Your task to perform on an android device: turn off wifi Image 0: 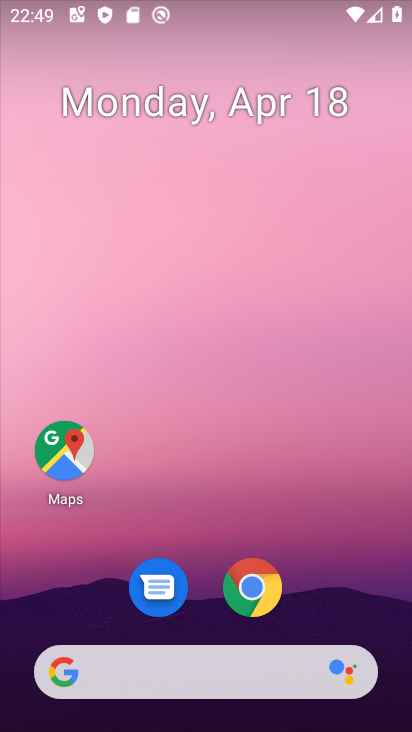
Step 0: drag from (392, 600) to (306, 190)
Your task to perform on an android device: turn off wifi Image 1: 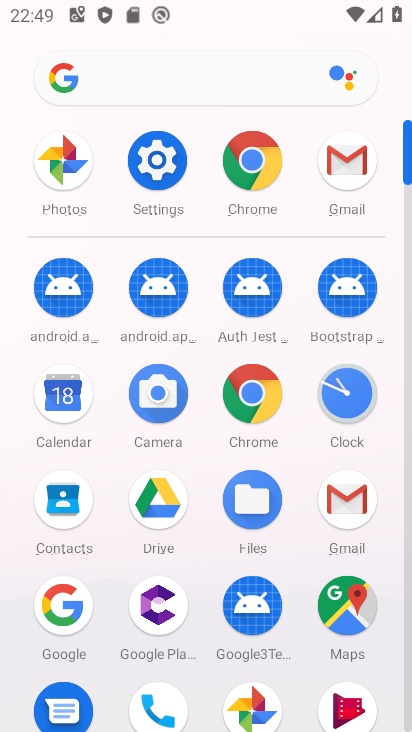
Step 1: click (144, 150)
Your task to perform on an android device: turn off wifi Image 2: 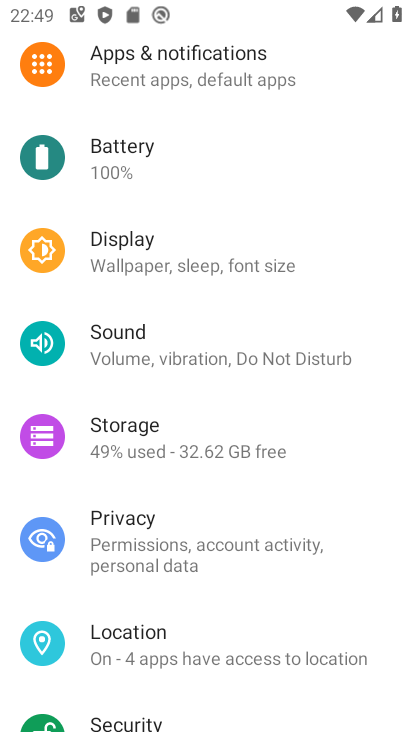
Step 2: drag from (236, 136) to (240, 547)
Your task to perform on an android device: turn off wifi Image 3: 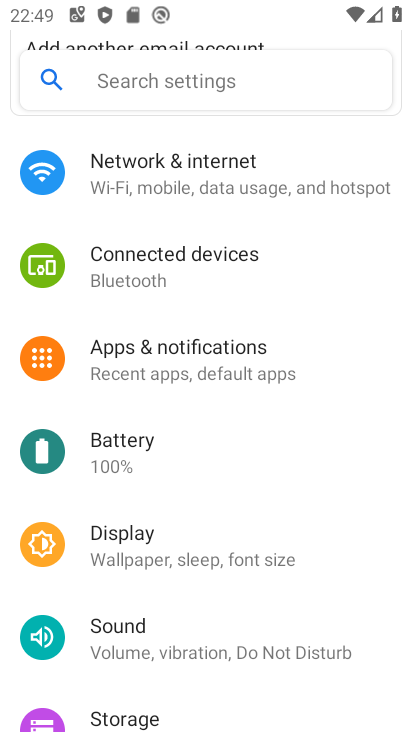
Step 3: click (186, 183)
Your task to perform on an android device: turn off wifi Image 4: 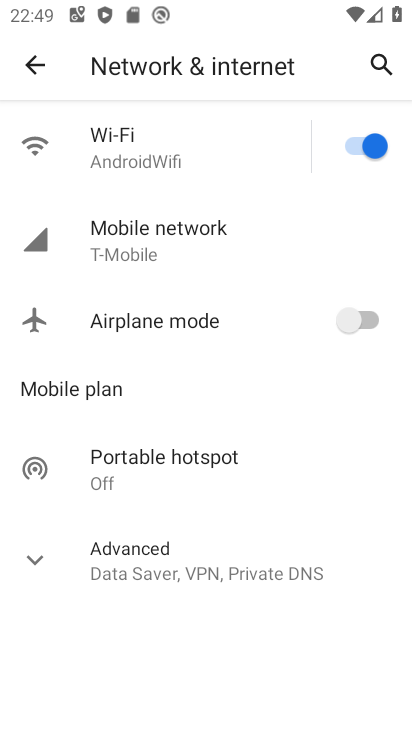
Step 4: click (360, 142)
Your task to perform on an android device: turn off wifi Image 5: 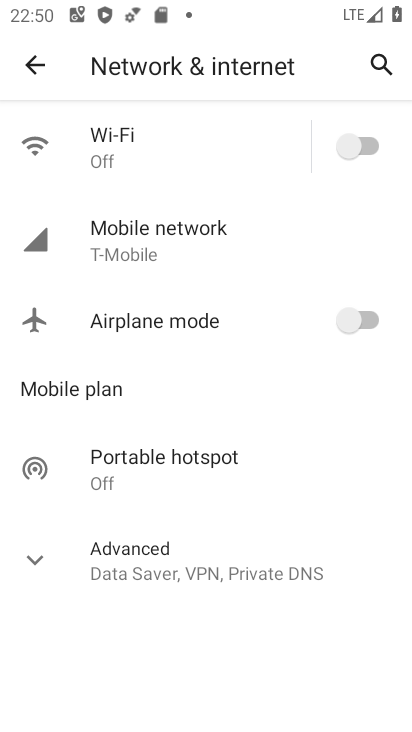
Step 5: task complete